Your task to perform on an android device: Open location settings Image 0: 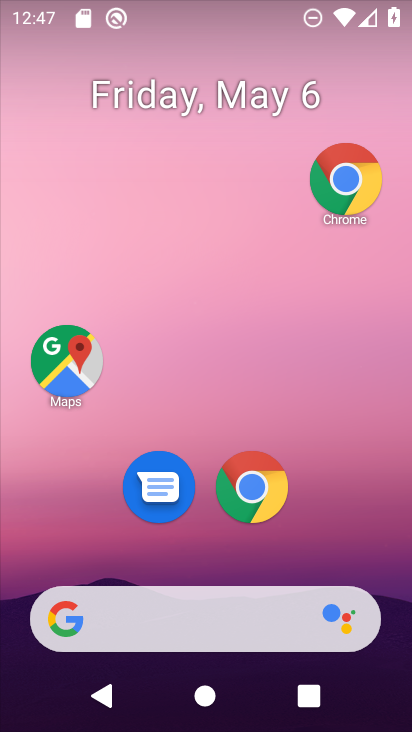
Step 0: drag from (354, 507) to (308, 100)
Your task to perform on an android device: Open location settings Image 1: 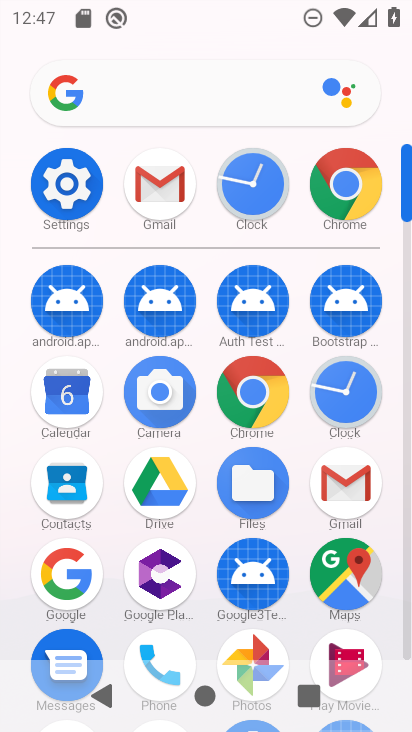
Step 1: click (69, 207)
Your task to perform on an android device: Open location settings Image 2: 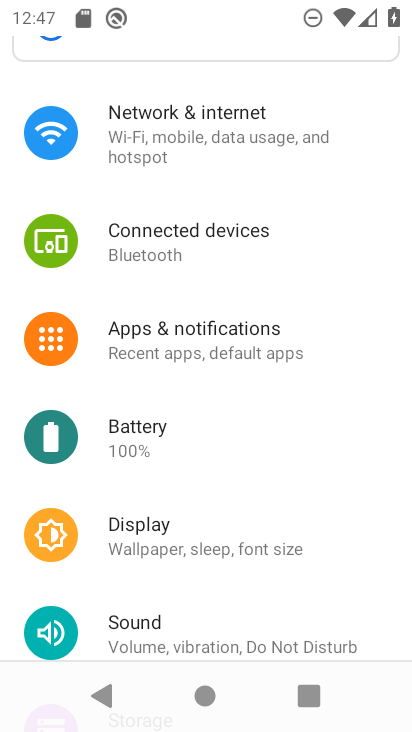
Step 2: drag from (224, 546) to (226, 252)
Your task to perform on an android device: Open location settings Image 3: 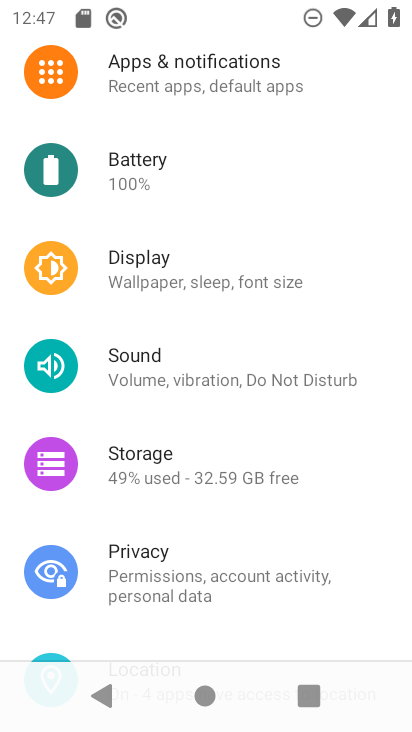
Step 3: drag from (221, 574) to (229, 278)
Your task to perform on an android device: Open location settings Image 4: 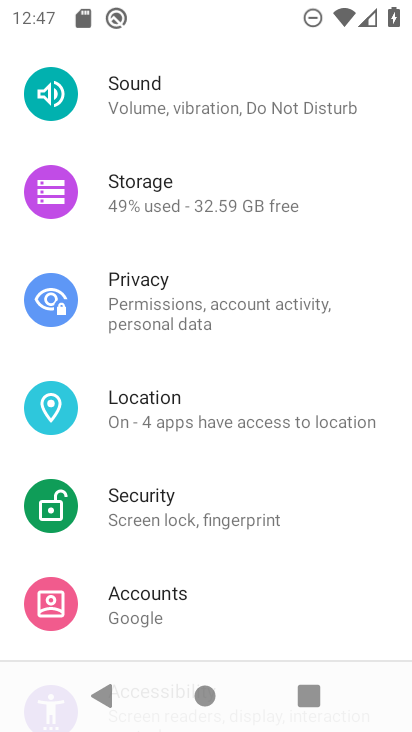
Step 4: drag from (221, 563) to (221, 459)
Your task to perform on an android device: Open location settings Image 5: 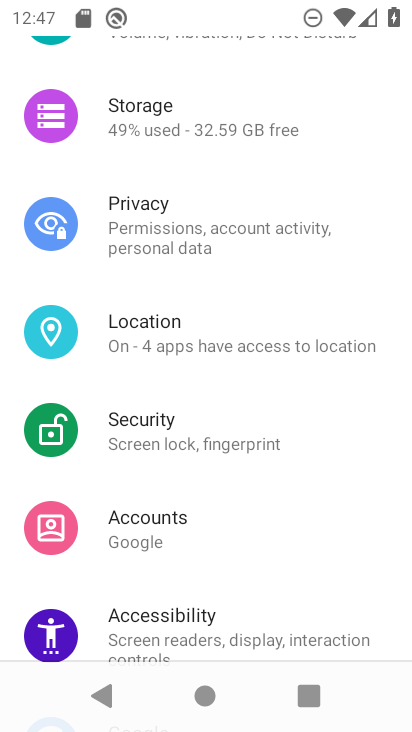
Step 5: click (252, 342)
Your task to perform on an android device: Open location settings Image 6: 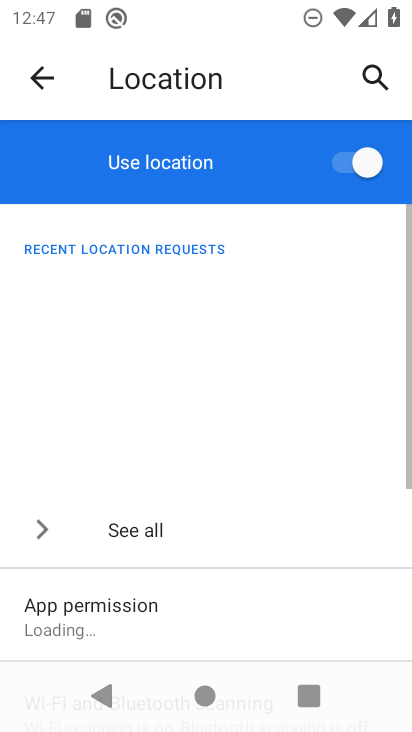
Step 6: task complete